Your task to perform on an android device: Go to Yahoo.com Image 0: 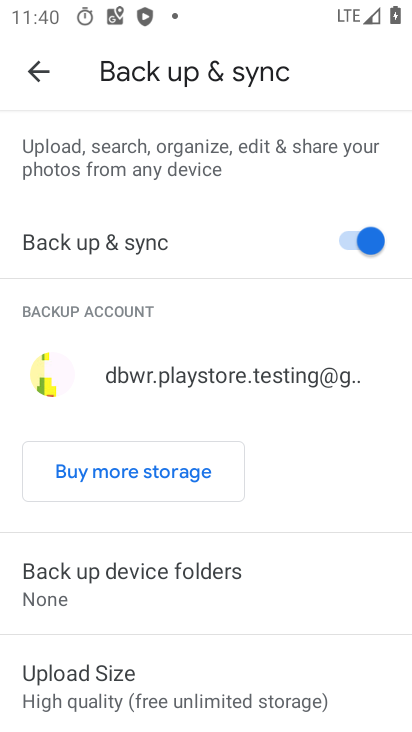
Step 0: press home button
Your task to perform on an android device: Go to Yahoo.com Image 1: 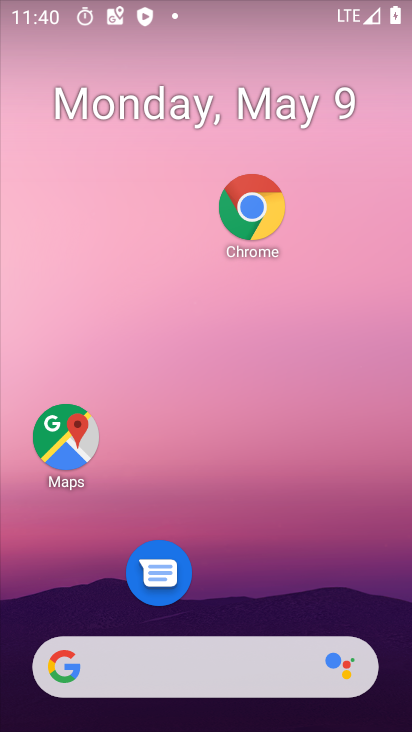
Step 1: drag from (186, 636) to (299, 28)
Your task to perform on an android device: Go to Yahoo.com Image 2: 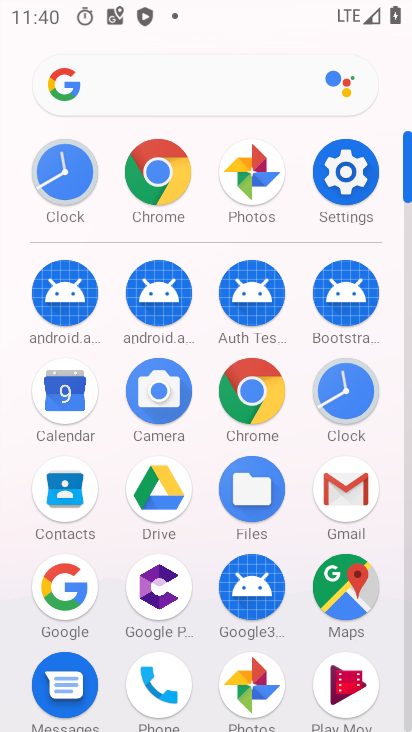
Step 2: click (251, 382)
Your task to perform on an android device: Go to Yahoo.com Image 3: 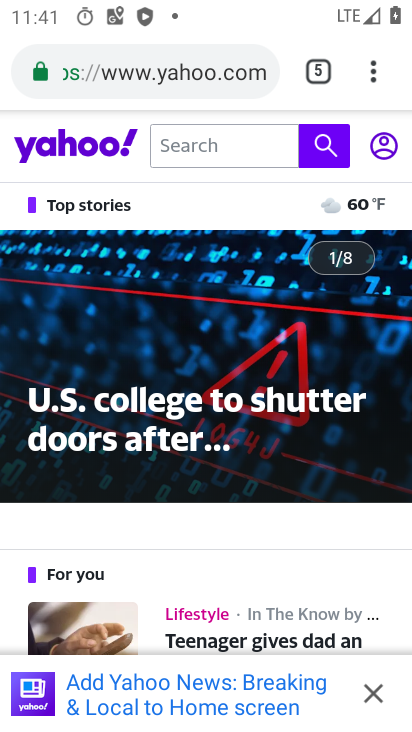
Step 3: task complete